Your task to perform on an android device: choose inbox layout in the gmail app Image 0: 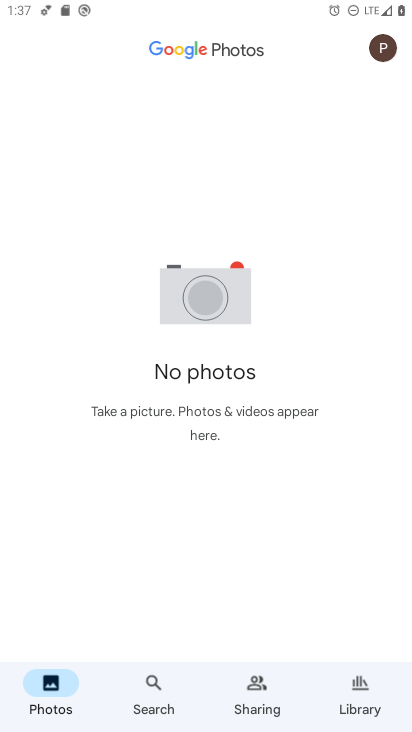
Step 0: press home button
Your task to perform on an android device: choose inbox layout in the gmail app Image 1: 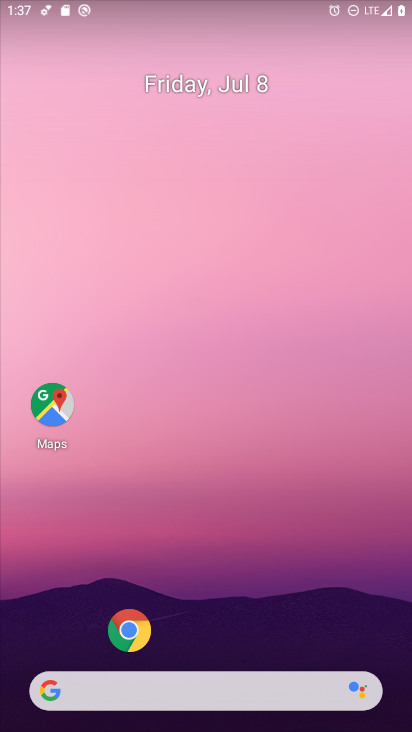
Step 1: drag from (285, 698) to (355, 33)
Your task to perform on an android device: choose inbox layout in the gmail app Image 2: 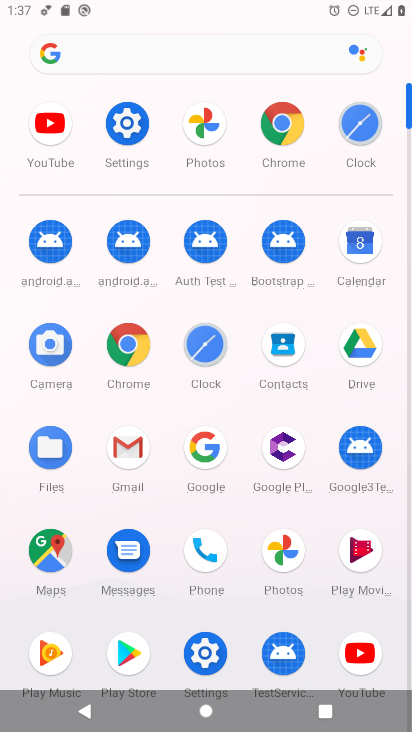
Step 2: click (123, 442)
Your task to perform on an android device: choose inbox layout in the gmail app Image 3: 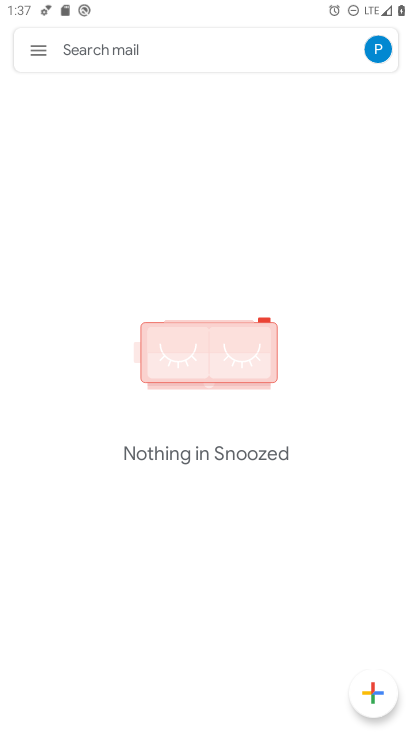
Step 3: click (27, 39)
Your task to perform on an android device: choose inbox layout in the gmail app Image 4: 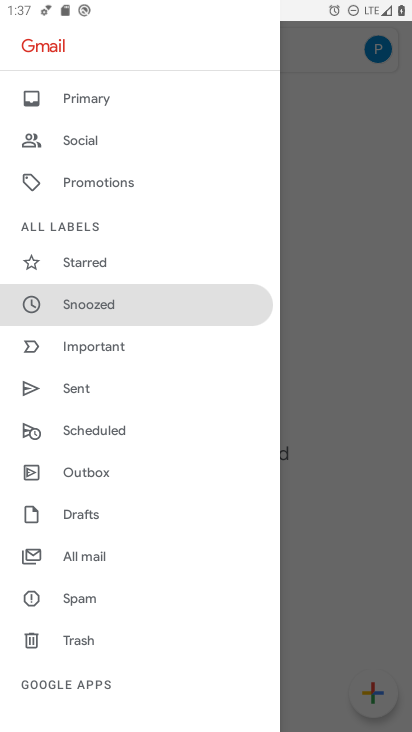
Step 4: drag from (143, 680) to (168, 240)
Your task to perform on an android device: choose inbox layout in the gmail app Image 5: 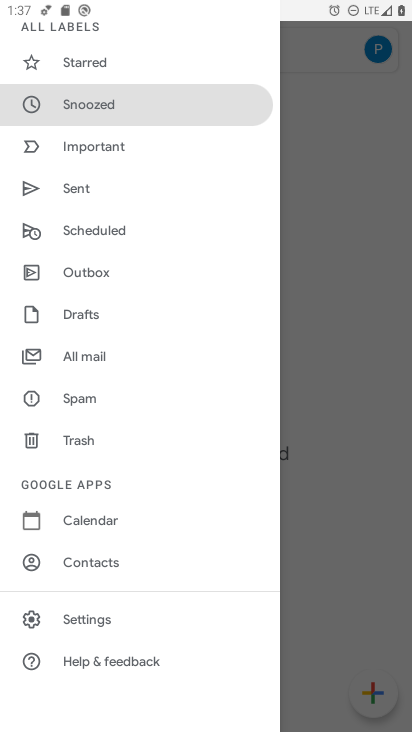
Step 5: click (106, 621)
Your task to perform on an android device: choose inbox layout in the gmail app Image 6: 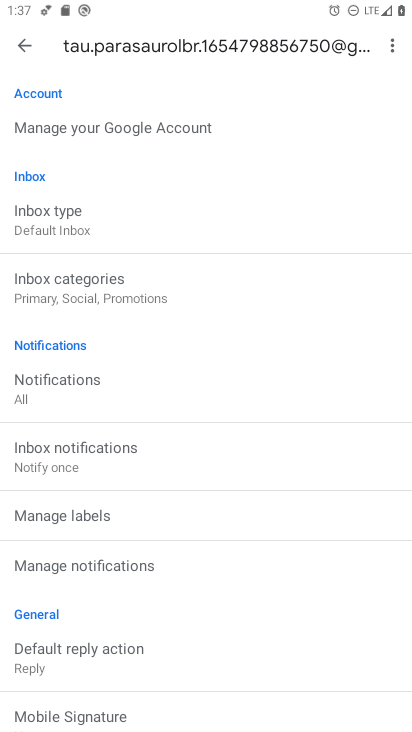
Step 6: click (90, 227)
Your task to perform on an android device: choose inbox layout in the gmail app Image 7: 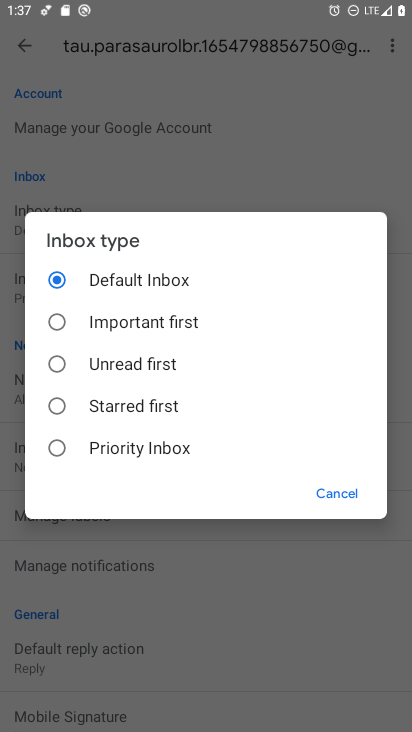
Step 7: click (57, 322)
Your task to perform on an android device: choose inbox layout in the gmail app Image 8: 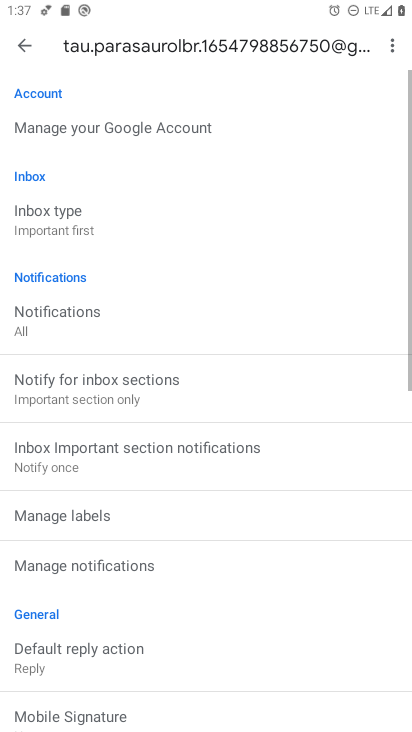
Step 8: task complete